Your task to perform on an android device: search for starred emails in the gmail app Image 0: 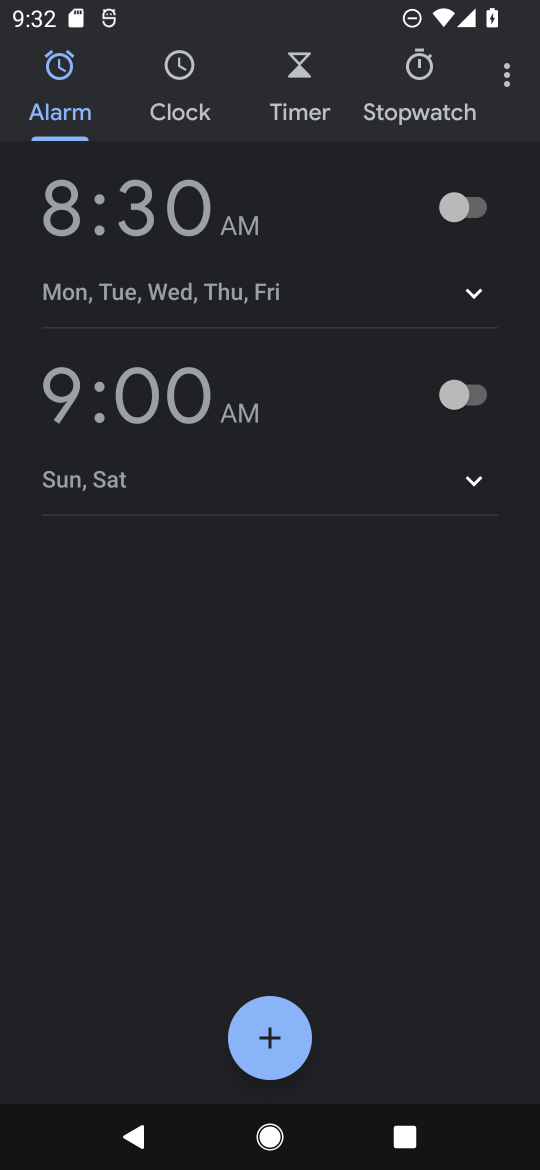
Step 0: press home button
Your task to perform on an android device: search for starred emails in the gmail app Image 1: 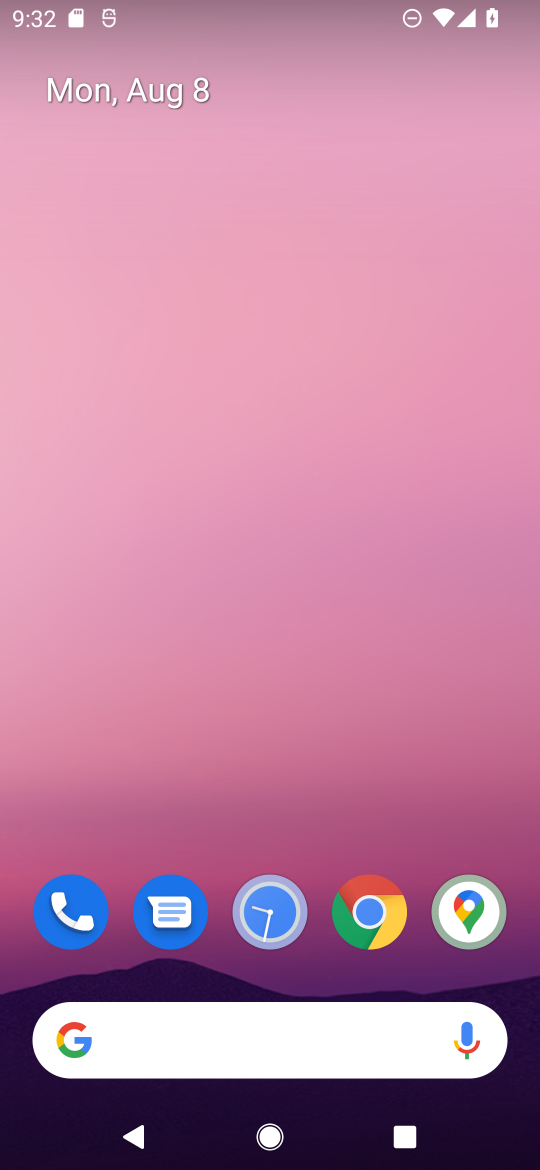
Step 1: drag from (522, 950) to (387, 48)
Your task to perform on an android device: search for starred emails in the gmail app Image 2: 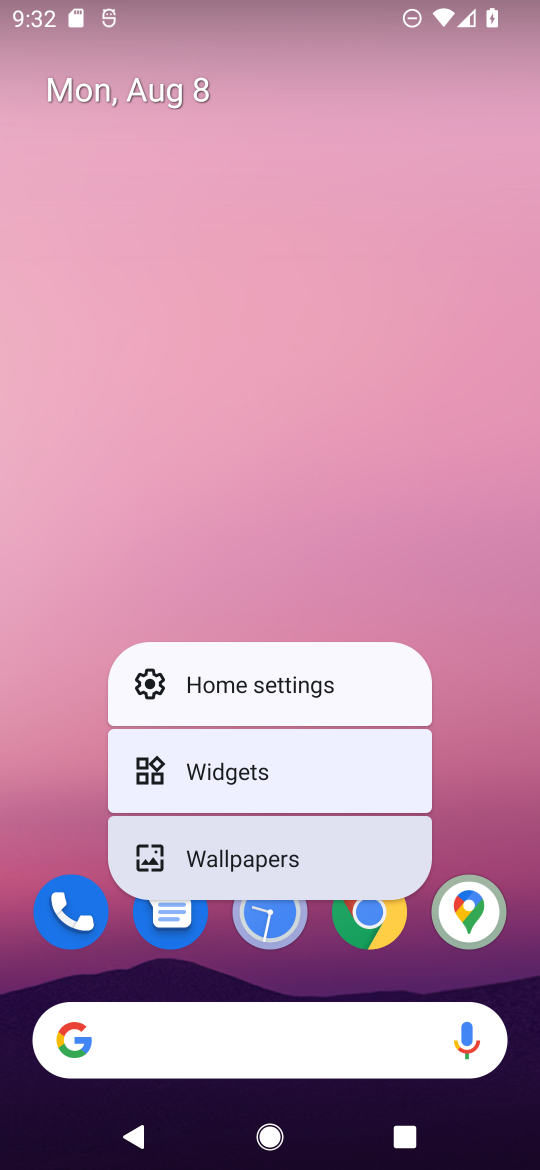
Step 2: click (509, 647)
Your task to perform on an android device: search for starred emails in the gmail app Image 3: 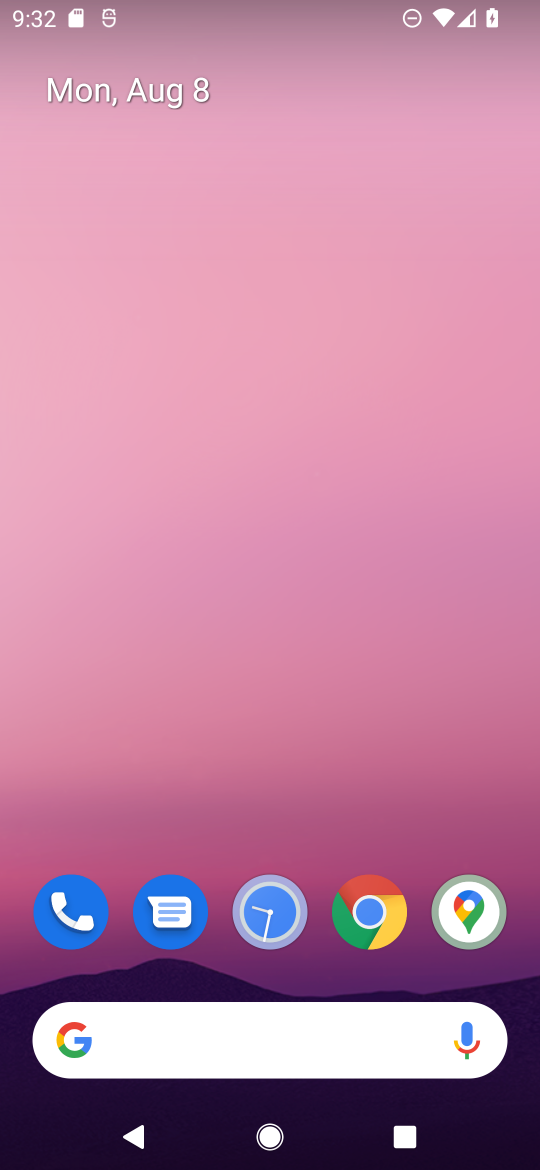
Step 3: drag from (521, 937) to (318, 76)
Your task to perform on an android device: search for starred emails in the gmail app Image 4: 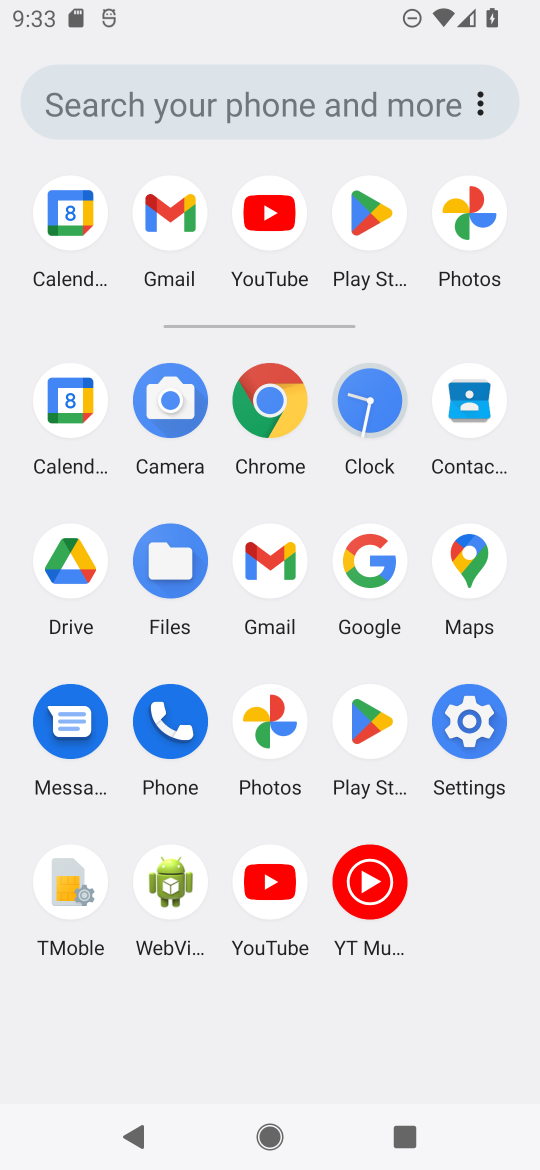
Step 4: click (271, 568)
Your task to perform on an android device: search for starred emails in the gmail app Image 5: 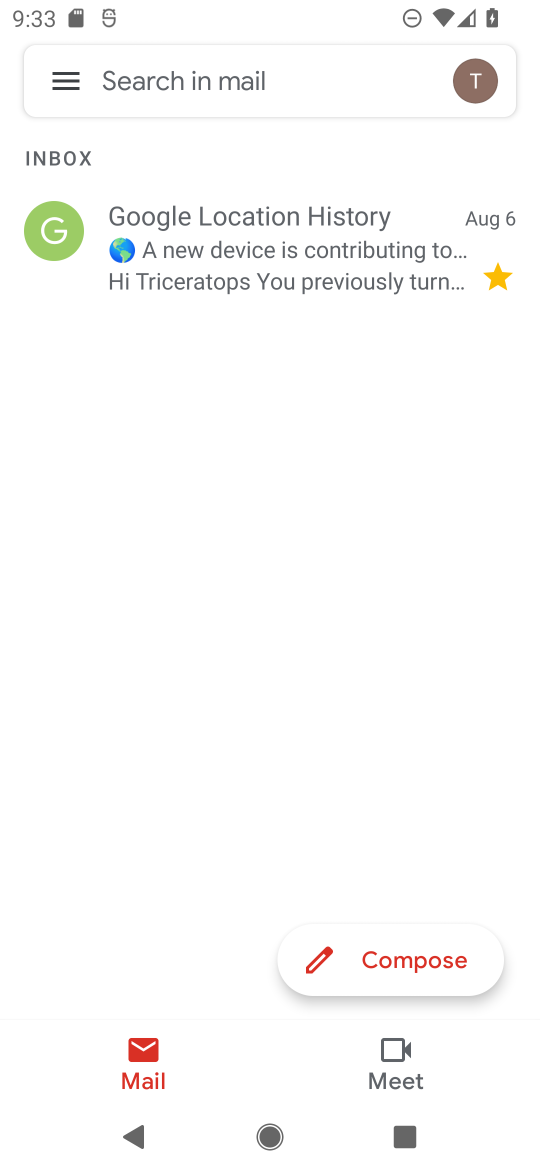
Step 5: click (71, 87)
Your task to perform on an android device: search for starred emails in the gmail app Image 6: 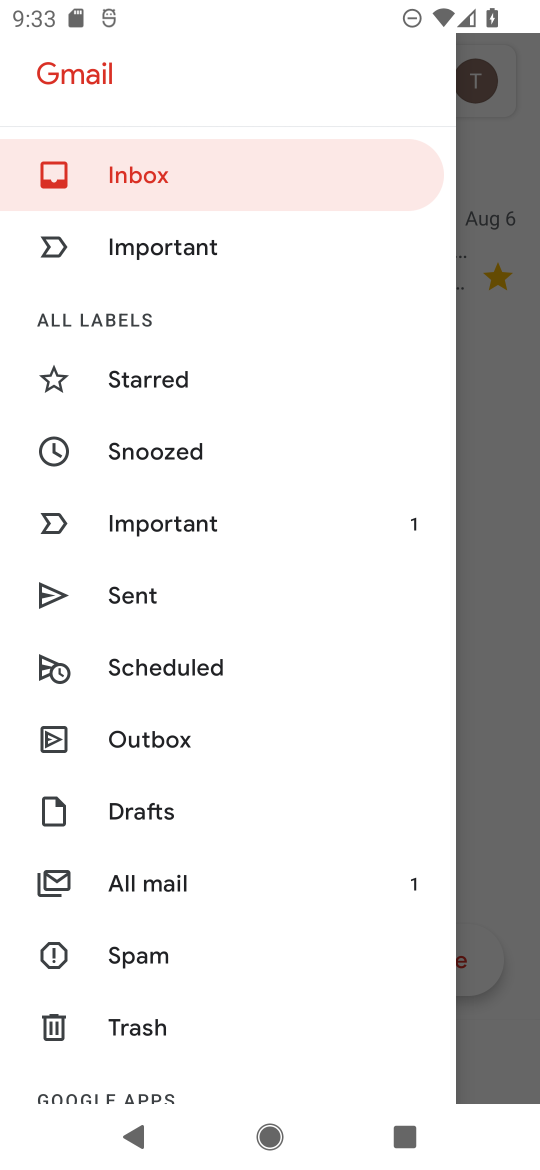
Step 6: click (150, 409)
Your task to perform on an android device: search for starred emails in the gmail app Image 7: 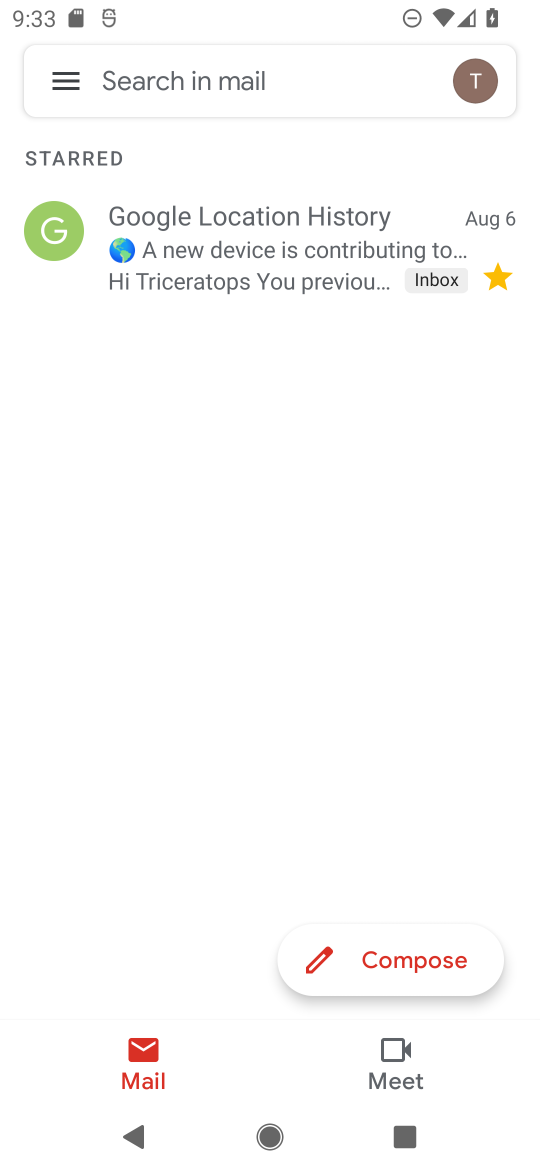
Step 7: task complete